Your task to perform on an android device: turn pop-ups off in chrome Image 0: 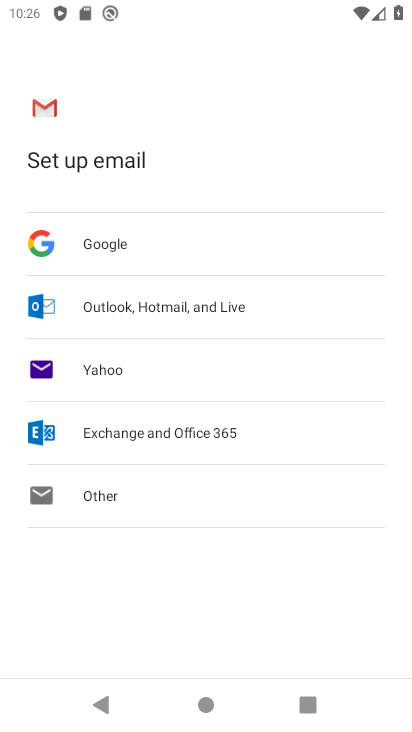
Step 0: press home button
Your task to perform on an android device: turn pop-ups off in chrome Image 1: 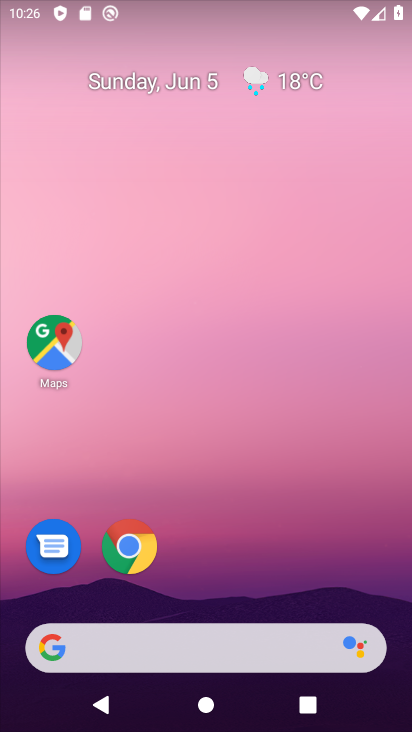
Step 1: drag from (161, 722) to (176, 164)
Your task to perform on an android device: turn pop-ups off in chrome Image 2: 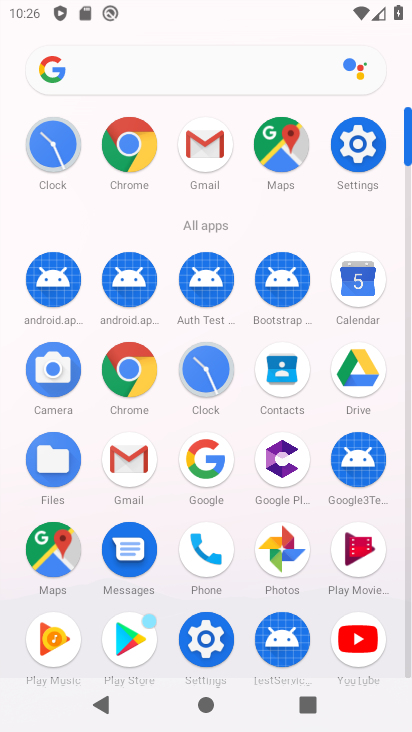
Step 2: click (125, 152)
Your task to perform on an android device: turn pop-ups off in chrome Image 3: 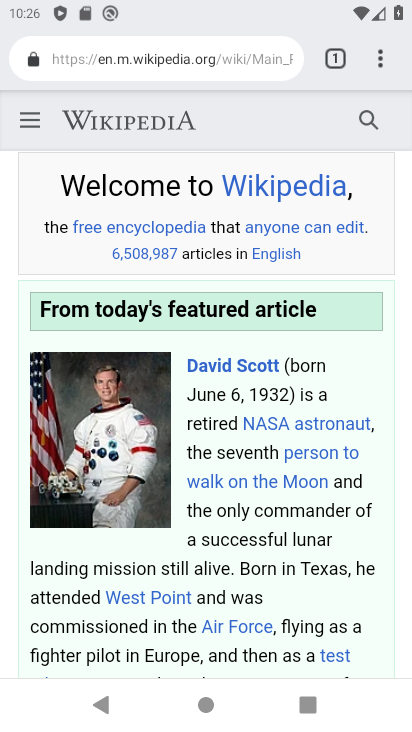
Step 3: click (380, 69)
Your task to perform on an android device: turn pop-ups off in chrome Image 4: 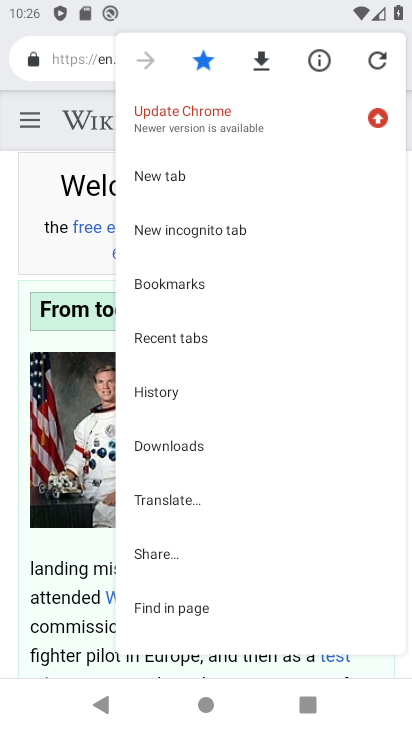
Step 4: drag from (270, 538) to (269, 338)
Your task to perform on an android device: turn pop-ups off in chrome Image 5: 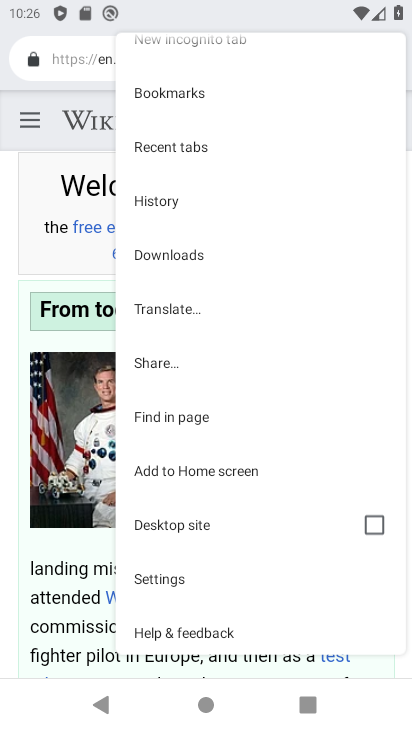
Step 5: click (179, 579)
Your task to perform on an android device: turn pop-ups off in chrome Image 6: 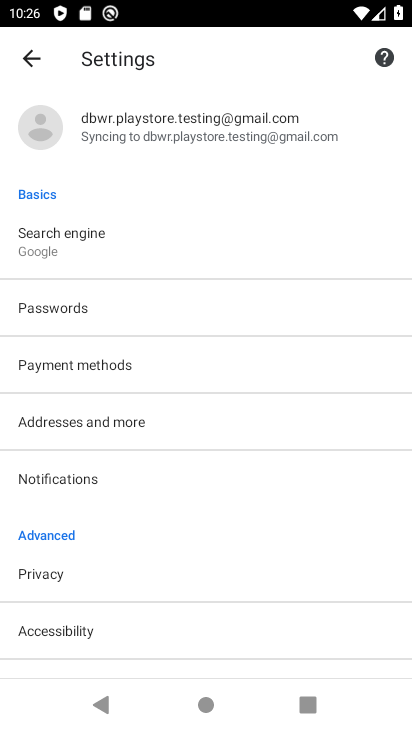
Step 6: drag from (119, 614) to (130, 405)
Your task to perform on an android device: turn pop-ups off in chrome Image 7: 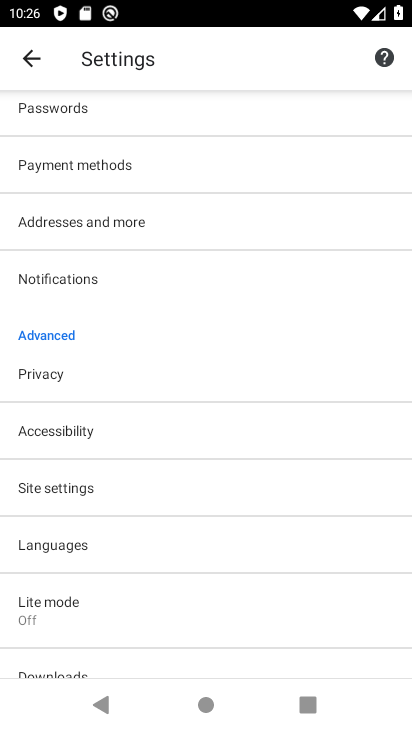
Step 7: click (61, 489)
Your task to perform on an android device: turn pop-ups off in chrome Image 8: 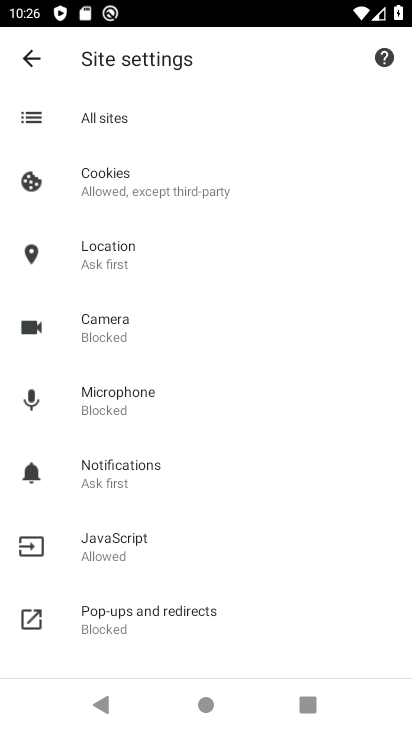
Step 8: click (142, 635)
Your task to perform on an android device: turn pop-ups off in chrome Image 9: 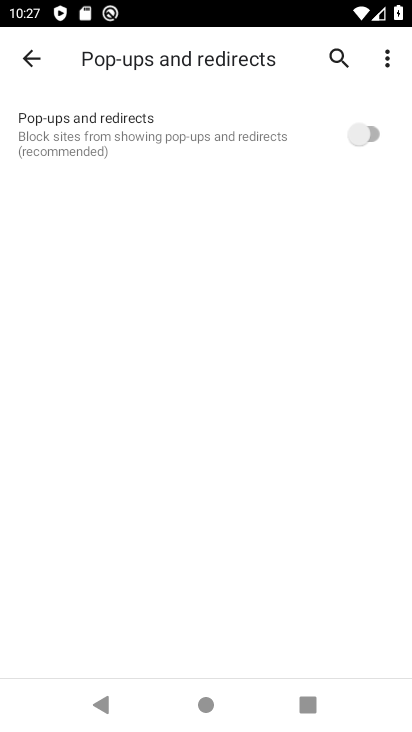
Step 9: task complete